Your task to perform on an android device: Show me the alarms in the clock app Image 0: 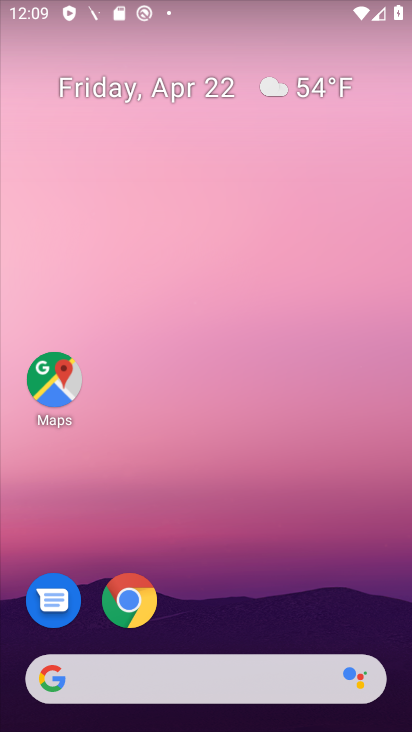
Step 0: click (127, 600)
Your task to perform on an android device: Show me the alarms in the clock app Image 1: 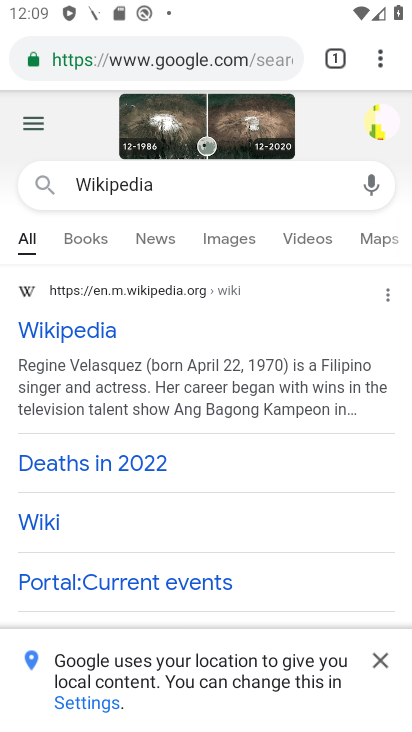
Step 1: click (383, 55)
Your task to perform on an android device: Show me the alarms in the clock app Image 2: 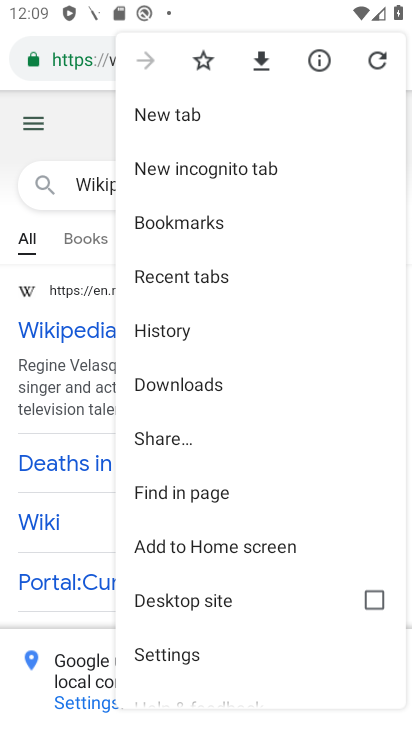
Step 2: click (179, 653)
Your task to perform on an android device: Show me the alarms in the clock app Image 3: 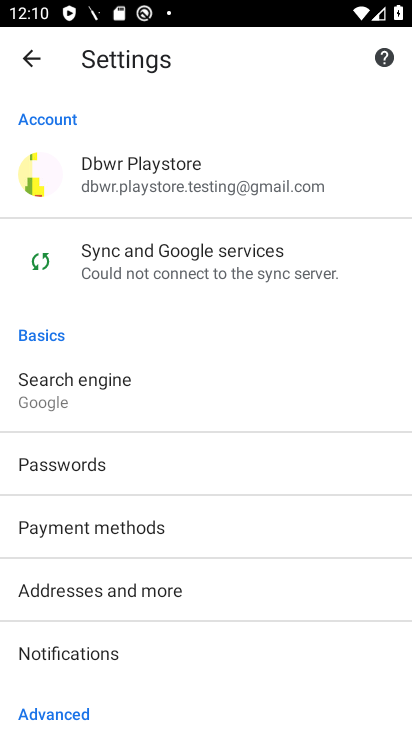
Step 3: press home button
Your task to perform on an android device: Show me the alarms in the clock app Image 4: 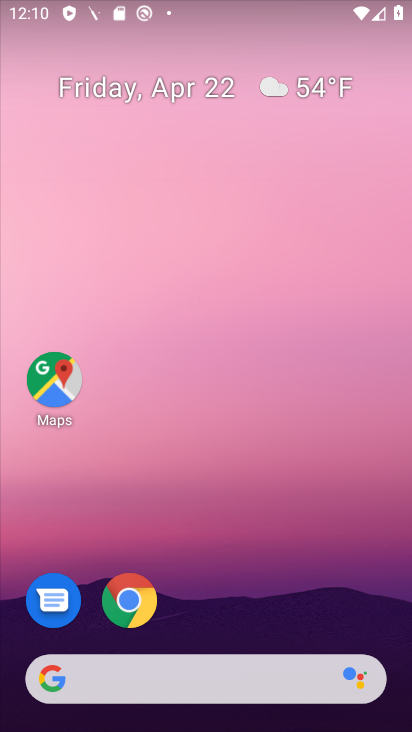
Step 4: drag from (388, 641) to (343, 159)
Your task to perform on an android device: Show me the alarms in the clock app Image 5: 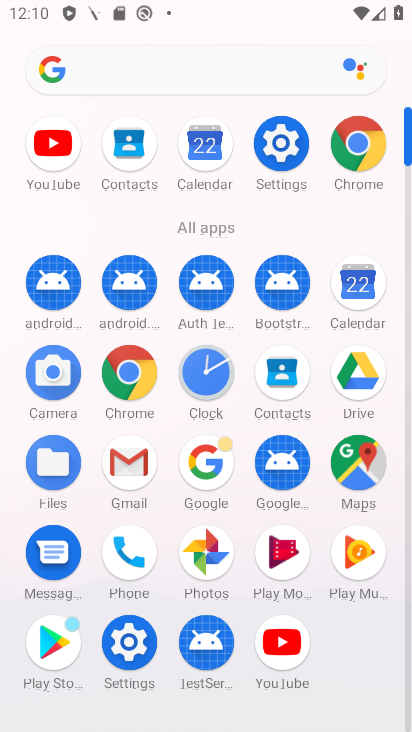
Step 5: click (206, 366)
Your task to perform on an android device: Show me the alarms in the clock app Image 6: 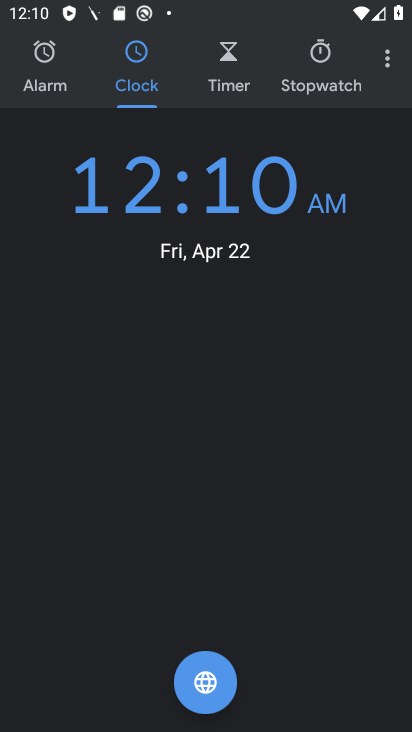
Step 6: click (42, 67)
Your task to perform on an android device: Show me the alarms in the clock app Image 7: 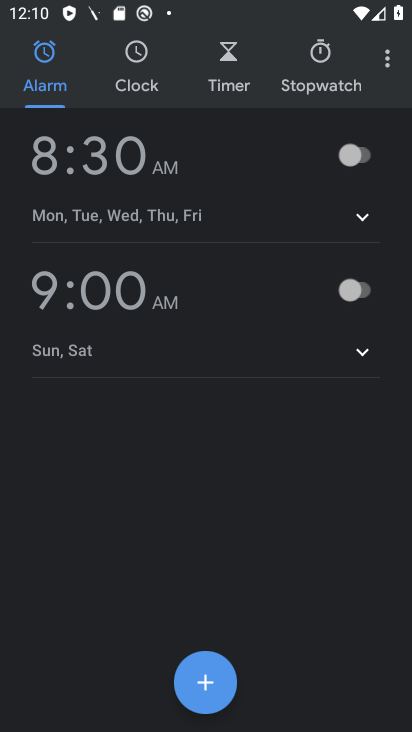
Step 7: task complete